Your task to perform on an android device: turn off javascript in the chrome app Image 0: 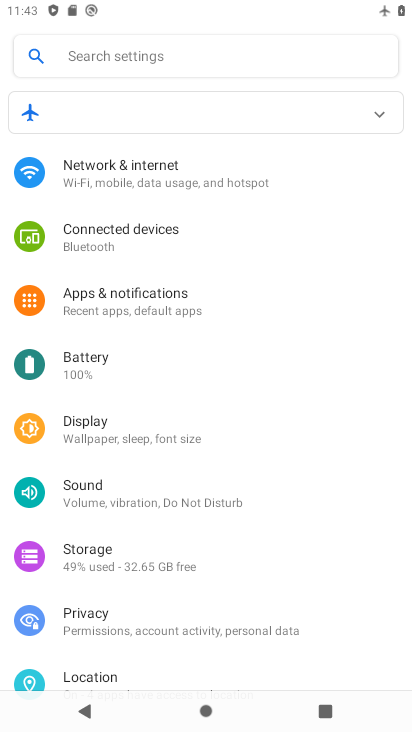
Step 0: press home button
Your task to perform on an android device: turn off javascript in the chrome app Image 1: 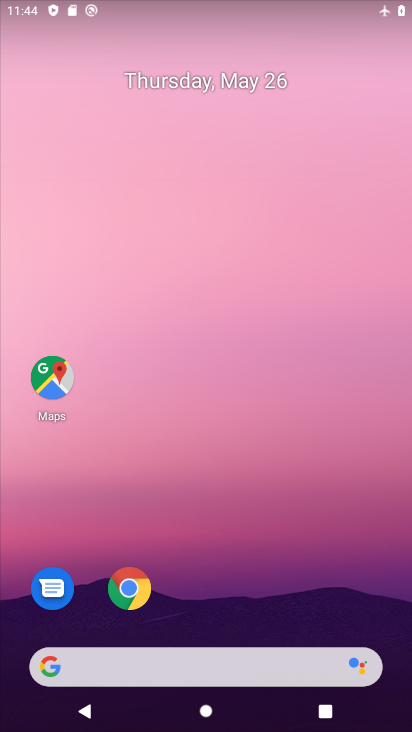
Step 1: click (122, 583)
Your task to perform on an android device: turn off javascript in the chrome app Image 2: 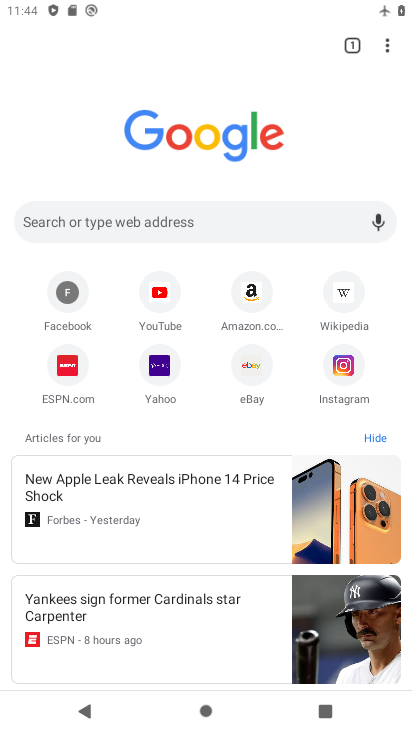
Step 2: click (389, 52)
Your task to perform on an android device: turn off javascript in the chrome app Image 3: 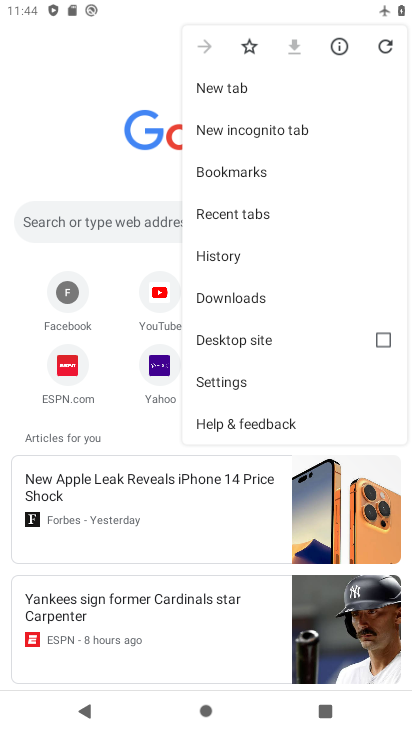
Step 3: click (208, 390)
Your task to perform on an android device: turn off javascript in the chrome app Image 4: 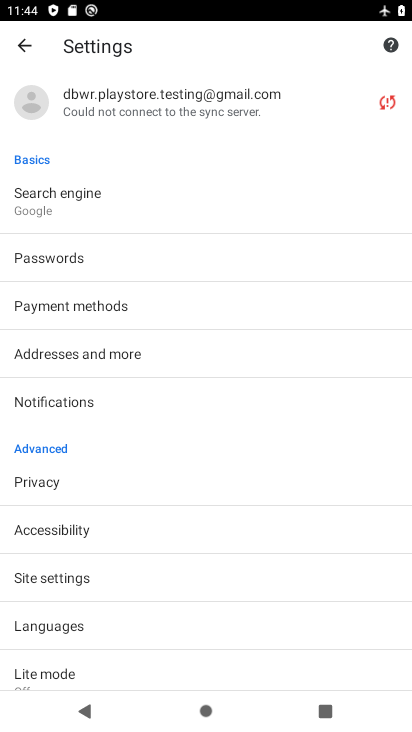
Step 4: click (112, 577)
Your task to perform on an android device: turn off javascript in the chrome app Image 5: 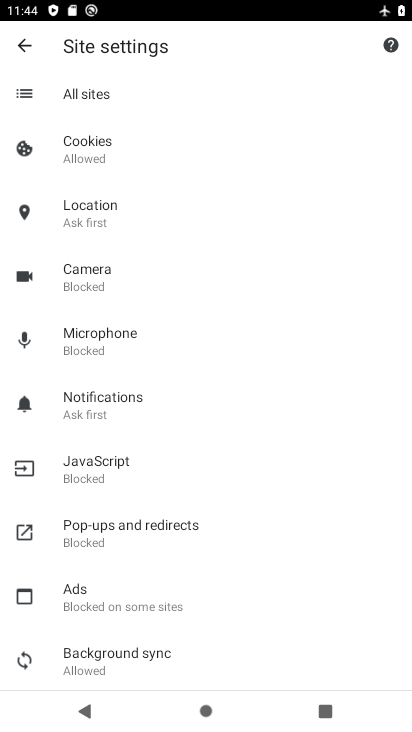
Step 5: click (97, 475)
Your task to perform on an android device: turn off javascript in the chrome app Image 6: 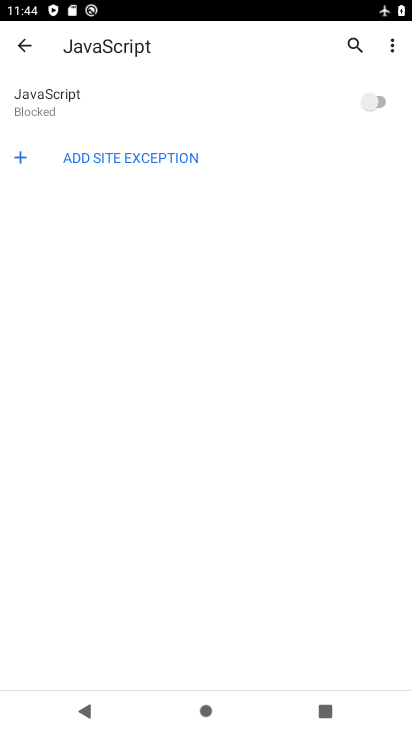
Step 6: task complete